Your task to perform on an android device: delete location history Image 0: 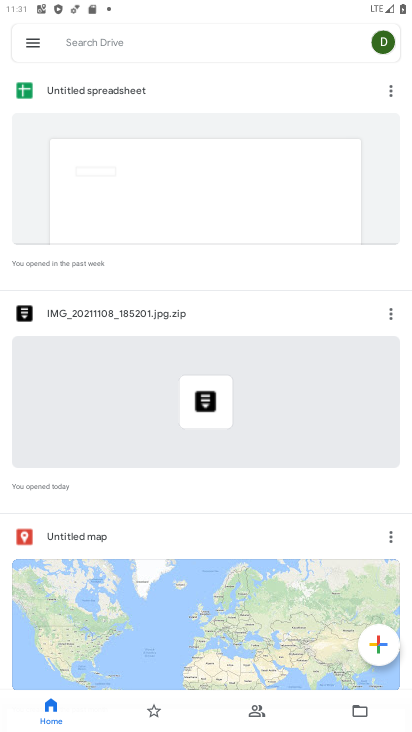
Step 0: press home button
Your task to perform on an android device: delete location history Image 1: 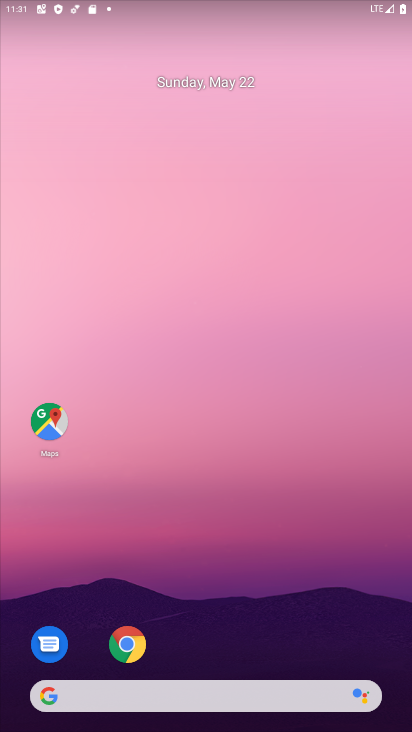
Step 1: drag from (312, 597) to (313, 12)
Your task to perform on an android device: delete location history Image 2: 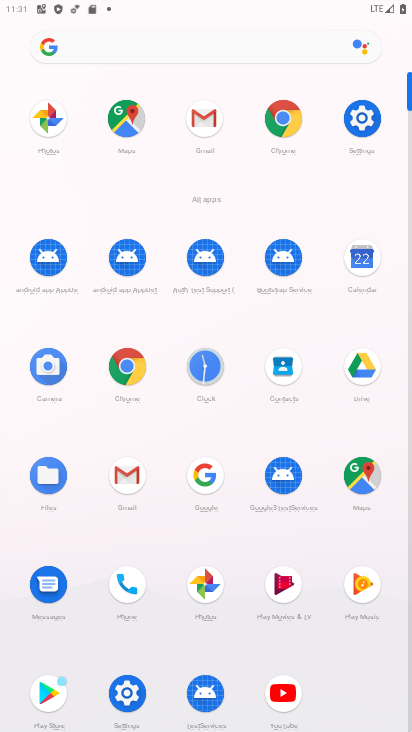
Step 2: click (354, 122)
Your task to perform on an android device: delete location history Image 3: 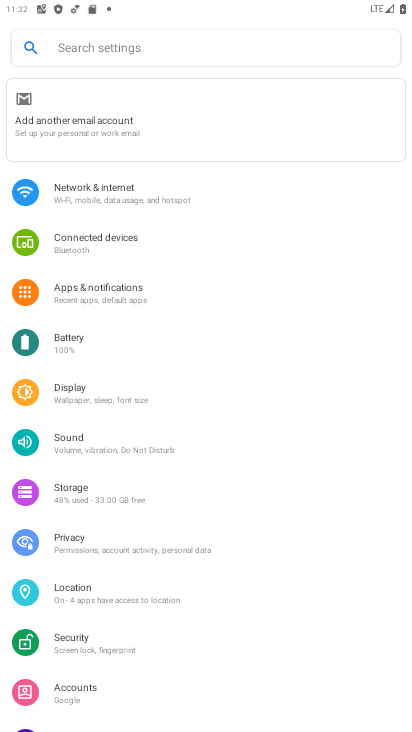
Step 3: click (105, 583)
Your task to perform on an android device: delete location history Image 4: 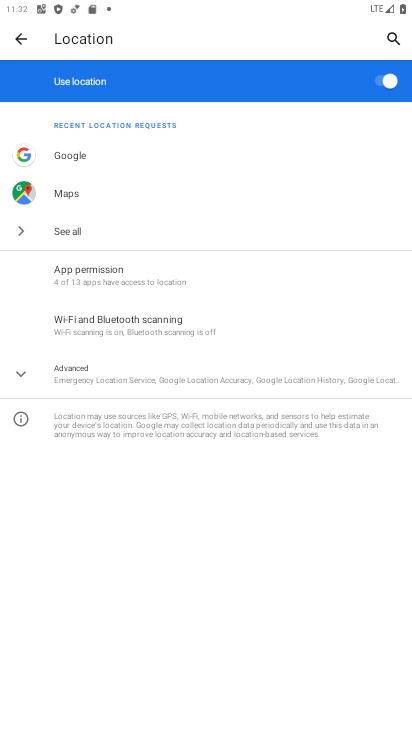
Step 4: click (172, 376)
Your task to perform on an android device: delete location history Image 5: 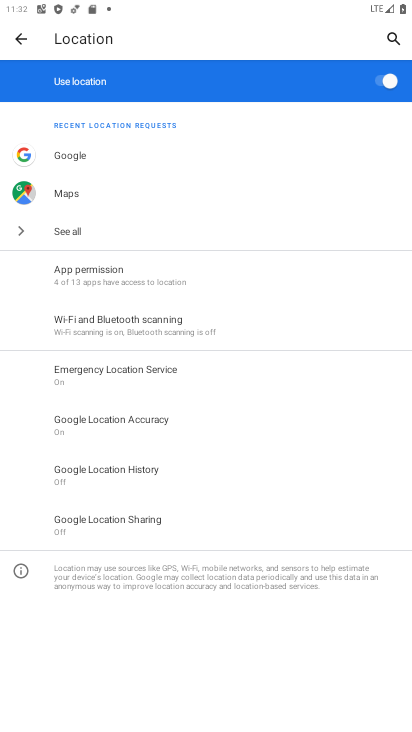
Step 5: click (148, 471)
Your task to perform on an android device: delete location history Image 6: 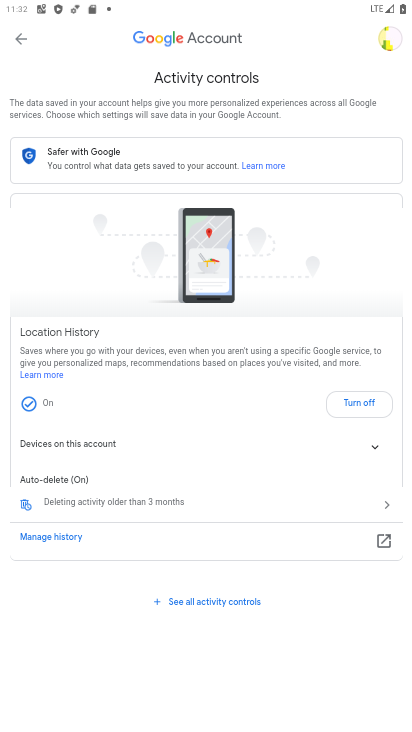
Step 6: click (339, 542)
Your task to perform on an android device: delete location history Image 7: 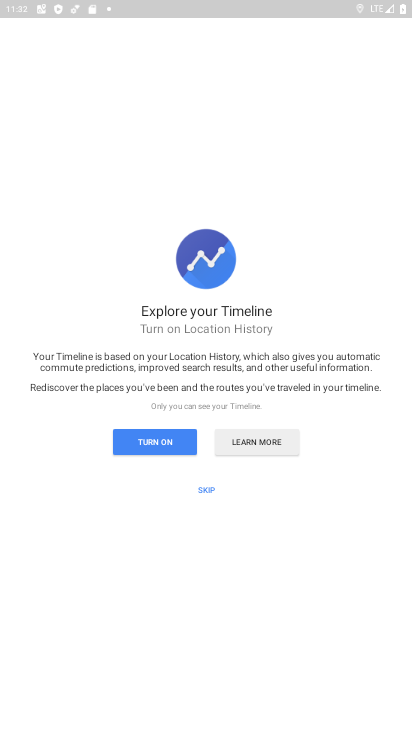
Step 7: click (201, 486)
Your task to perform on an android device: delete location history Image 8: 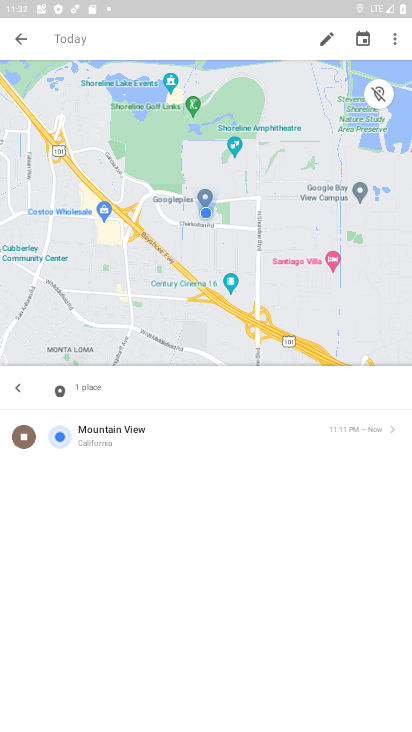
Step 8: click (399, 37)
Your task to perform on an android device: delete location history Image 9: 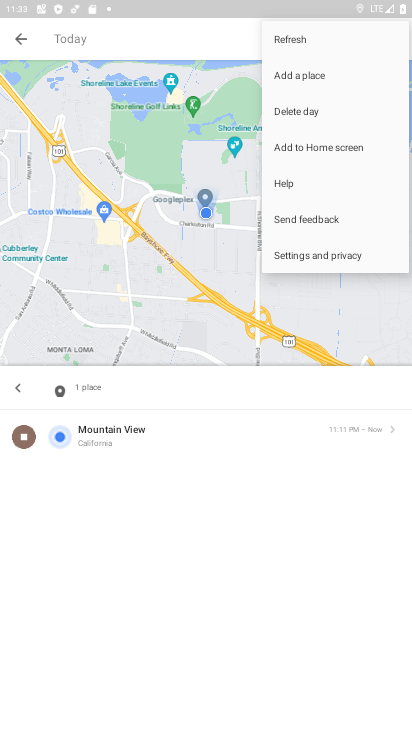
Step 9: click (336, 257)
Your task to perform on an android device: delete location history Image 10: 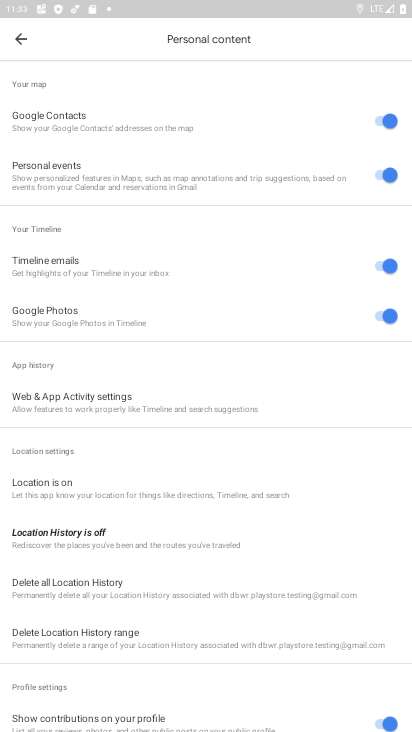
Step 10: click (116, 588)
Your task to perform on an android device: delete location history Image 11: 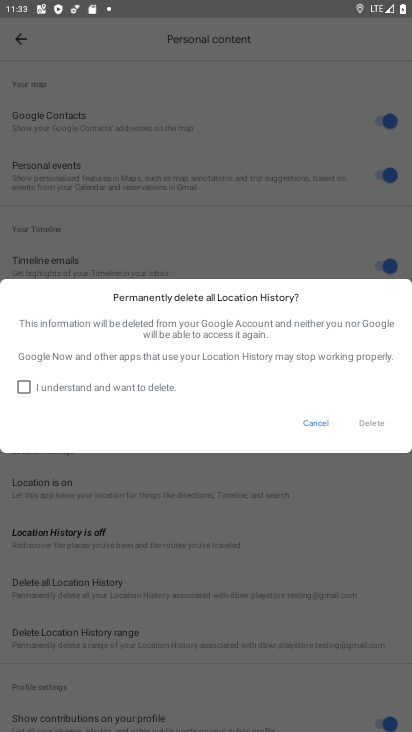
Step 11: click (28, 384)
Your task to perform on an android device: delete location history Image 12: 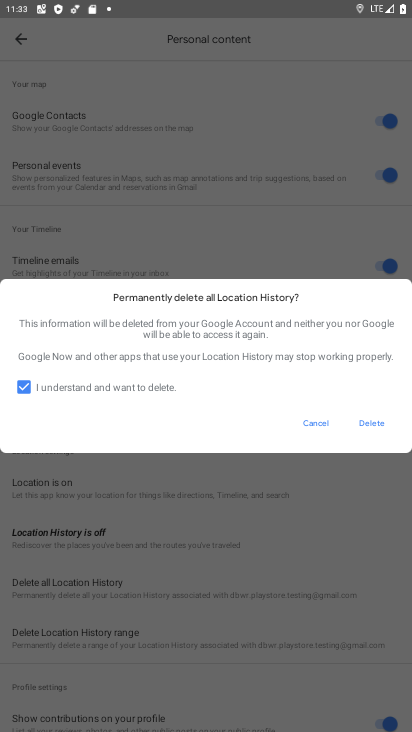
Step 12: click (372, 419)
Your task to perform on an android device: delete location history Image 13: 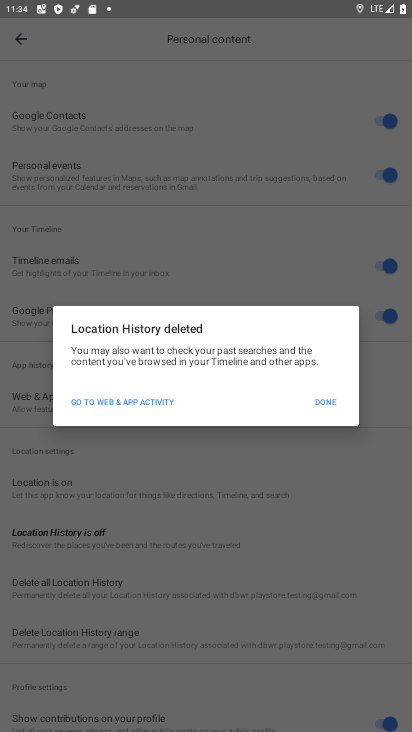
Step 13: click (321, 404)
Your task to perform on an android device: delete location history Image 14: 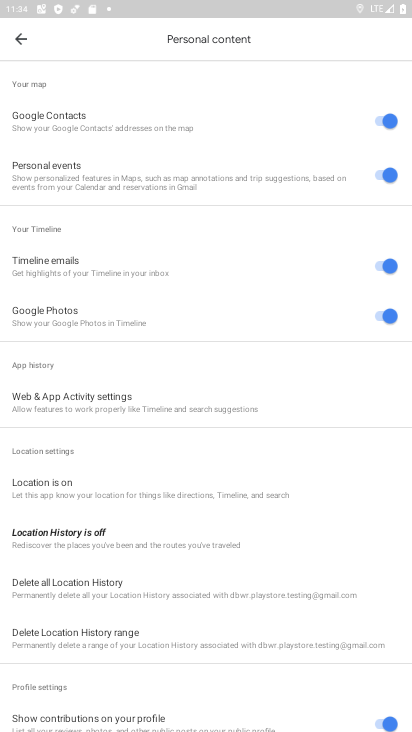
Step 14: task complete